Your task to perform on an android device: Go to calendar. Show me events next week Image 0: 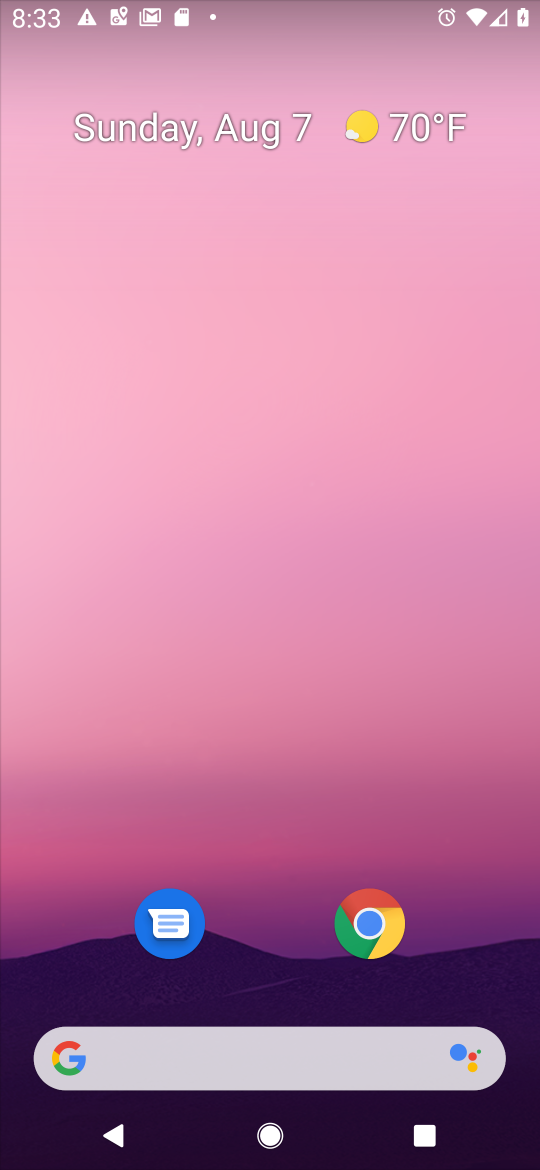
Step 0: drag from (487, 958) to (231, 52)
Your task to perform on an android device: Go to calendar. Show me events next week Image 1: 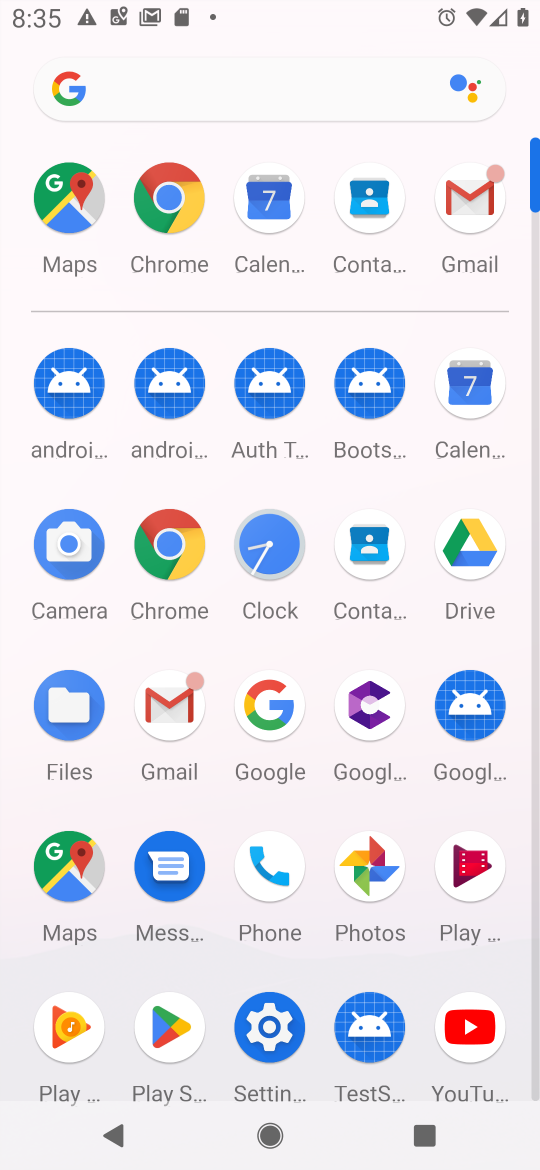
Step 1: click (450, 397)
Your task to perform on an android device: Go to calendar. Show me events next week Image 2: 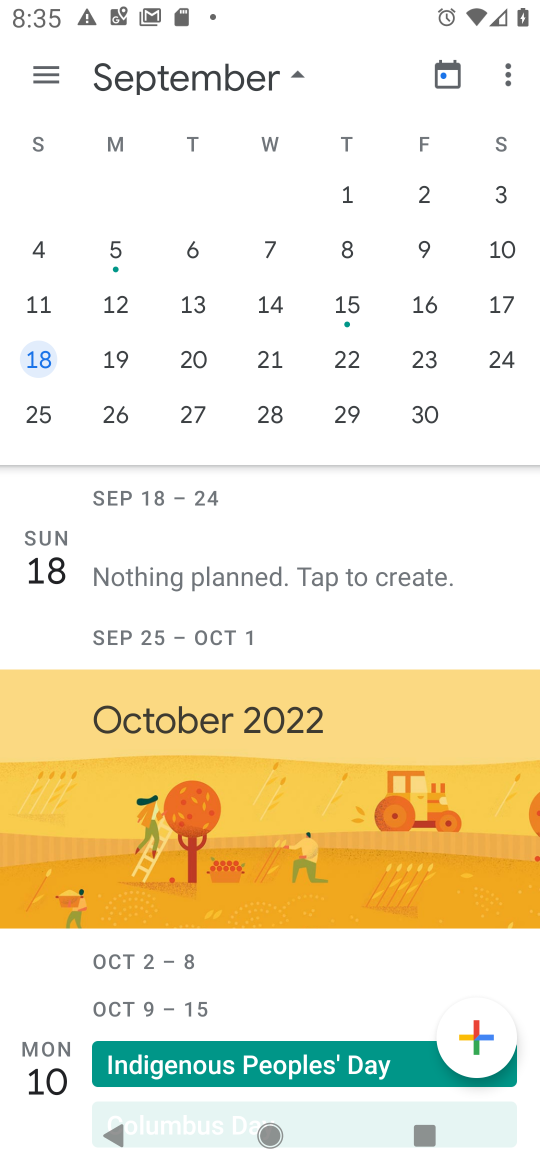
Step 2: task complete